Your task to perform on an android device: open wifi settings Image 0: 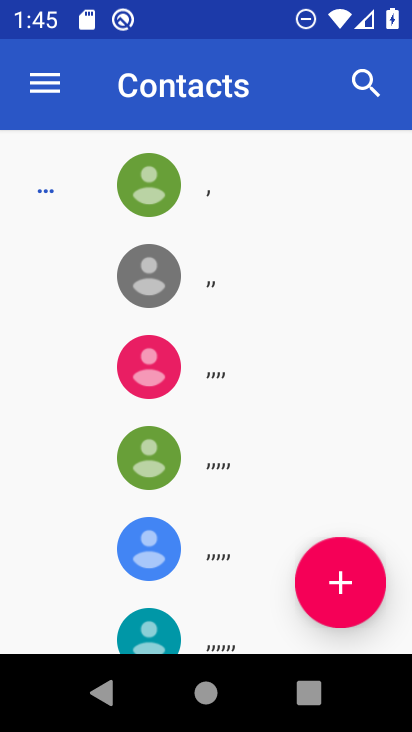
Step 0: press home button
Your task to perform on an android device: open wifi settings Image 1: 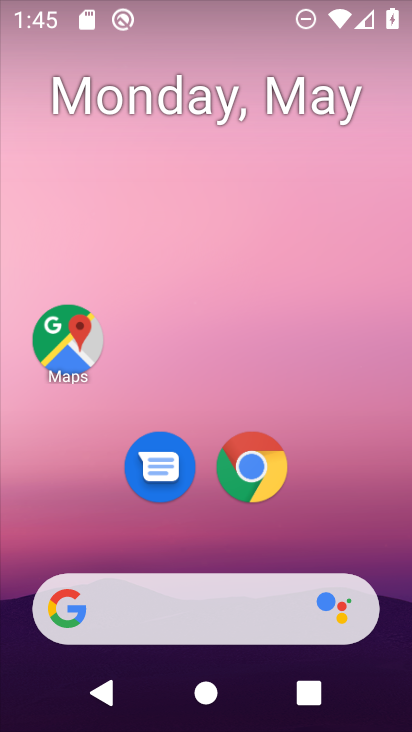
Step 1: drag from (114, 565) to (244, 35)
Your task to perform on an android device: open wifi settings Image 2: 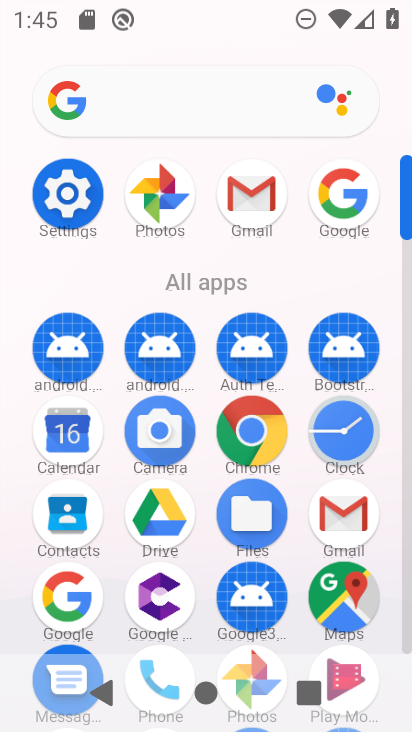
Step 2: drag from (159, 570) to (213, 379)
Your task to perform on an android device: open wifi settings Image 3: 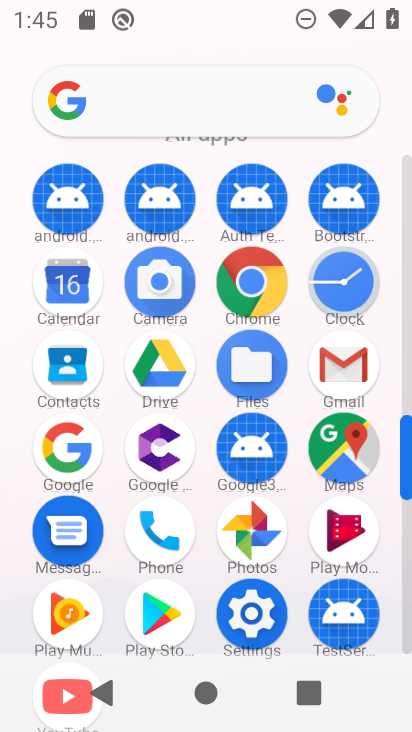
Step 3: click (254, 623)
Your task to perform on an android device: open wifi settings Image 4: 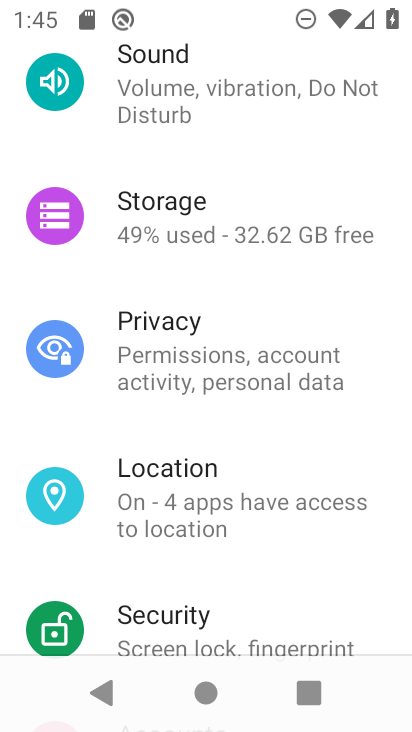
Step 4: drag from (270, 154) to (259, 506)
Your task to perform on an android device: open wifi settings Image 5: 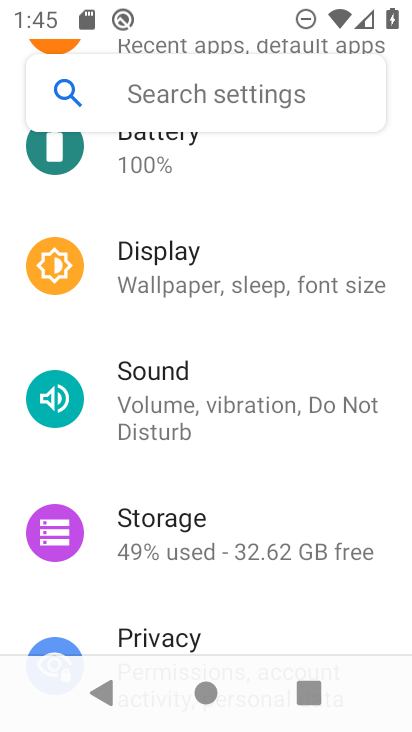
Step 5: drag from (237, 240) to (250, 507)
Your task to perform on an android device: open wifi settings Image 6: 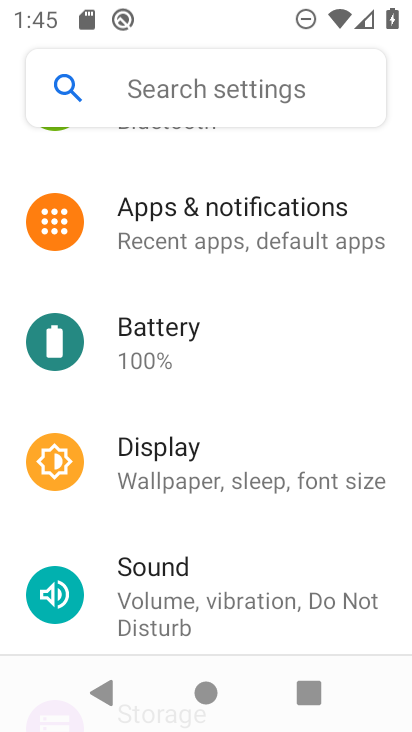
Step 6: drag from (232, 264) to (236, 572)
Your task to perform on an android device: open wifi settings Image 7: 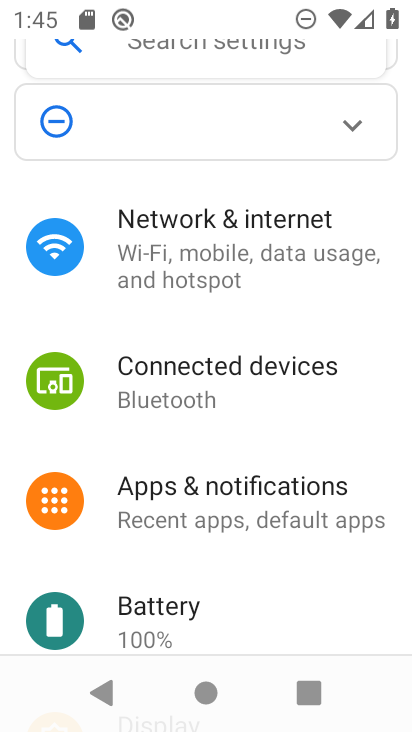
Step 7: click (245, 274)
Your task to perform on an android device: open wifi settings Image 8: 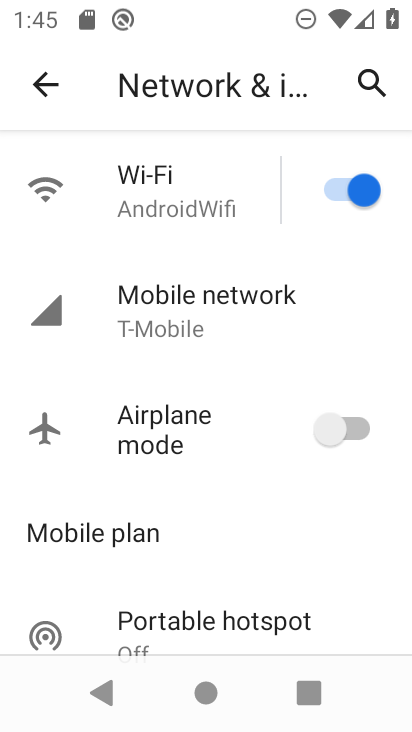
Step 8: click (193, 210)
Your task to perform on an android device: open wifi settings Image 9: 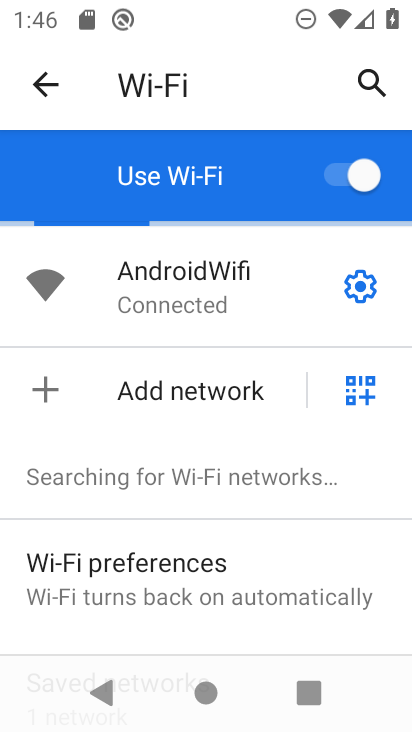
Step 9: task complete